Your task to perform on an android device: Set the phone to "Do not disturb". Image 0: 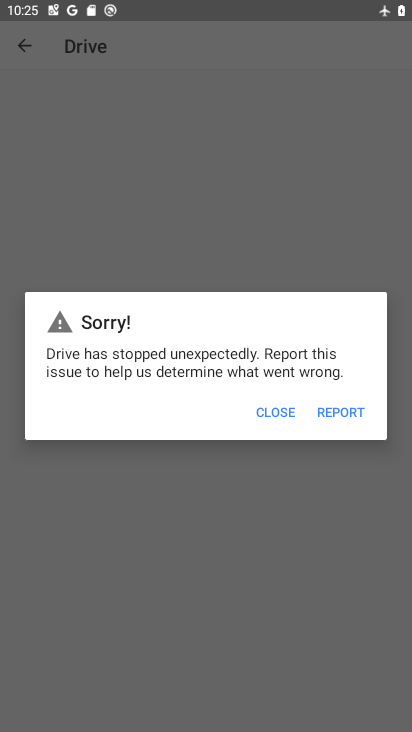
Step 0: press home button
Your task to perform on an android device: Set the phone to "Do not disturb". Image 1: 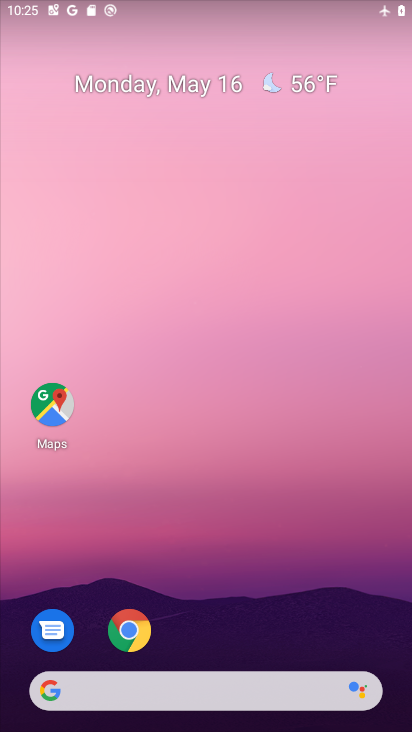
Step 1: drag from (237, 612) to (218, 151)
Your task to perform on an android device: Set the phone to "Do not disturb". Image 2: 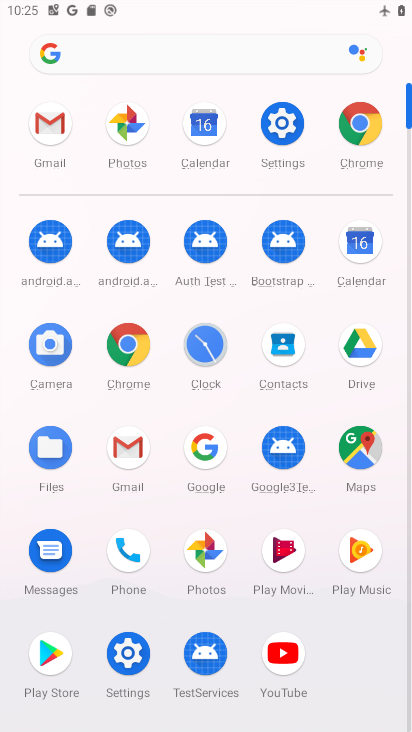
Step 2: click (286, 118)
Your task to perform on an android device: Set the phone to "Do not disturb". Image 3: 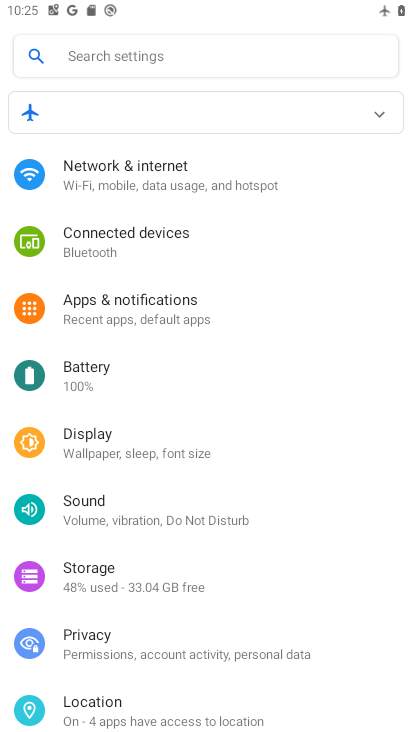
Step 3: click (150, 507)
Your task to perform on an android device: Set the phone to "Do not disturb". Image 4: 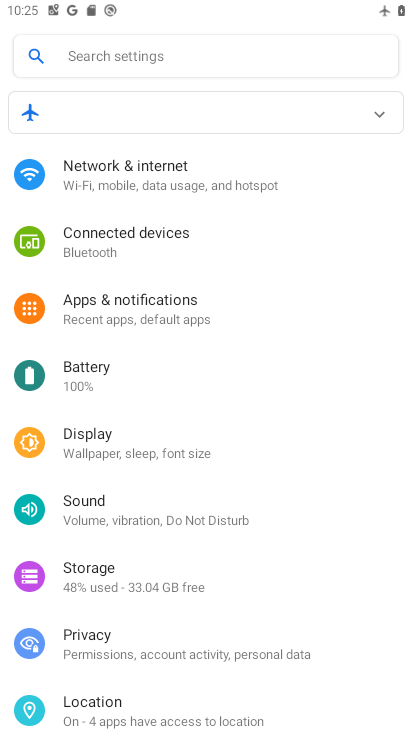
Step 4: click (159, 510)
Your task to perform on an android device: Set the phone to "Do not disturb". Image 5: 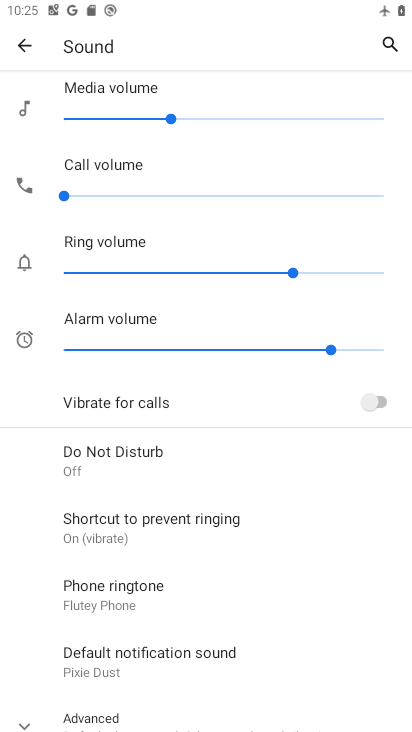
Step 5: click (138, 458)
Your task to perform on an android device: Set the phone to "Do not disturb". Image 6: 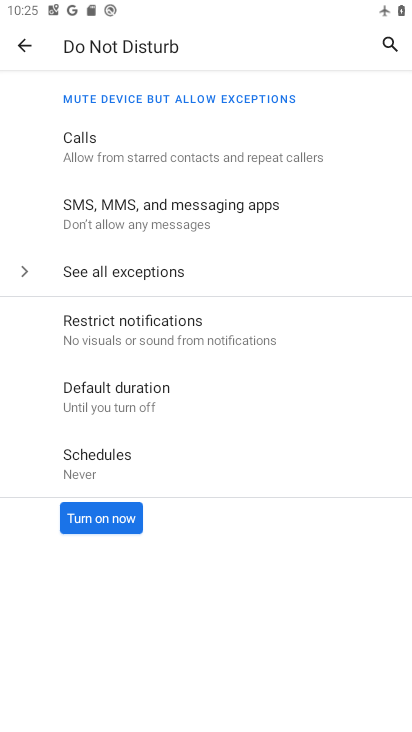
Step 6: click (128, 516)
Your task to perform on an android device: Set the phone to "Do not disturb". Image 7: 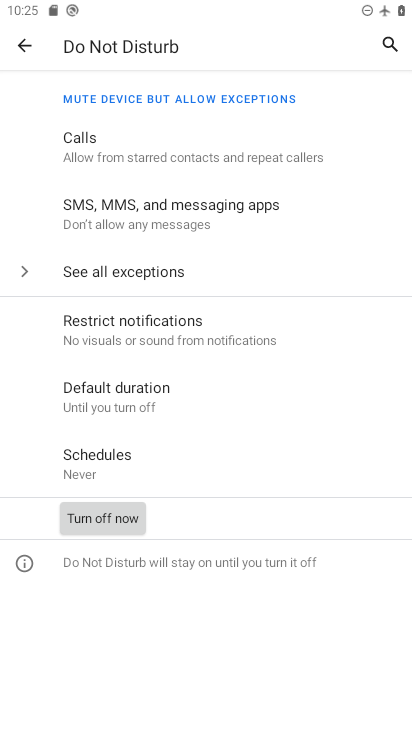
Step 7: task complete